Your task to perform on an android device: Search for hotels in New York Image 0: 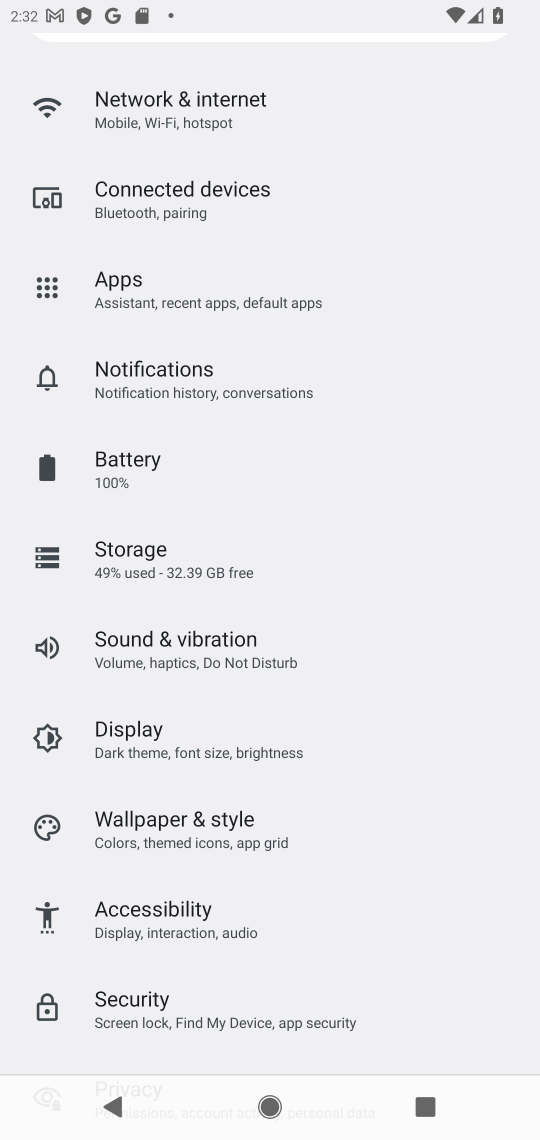
Step 0: press home button
Your task to perform on an android device: Search for hotels in New York Image 1: 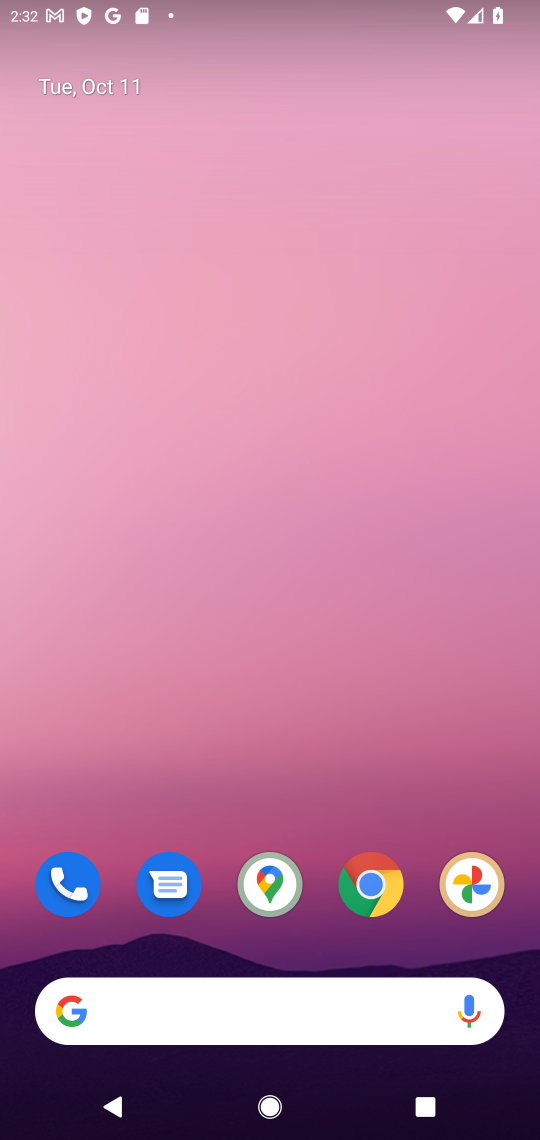
Step 1: click (372, 884)
Your task to perform on an android device: Search for hotels in New York Image 2: 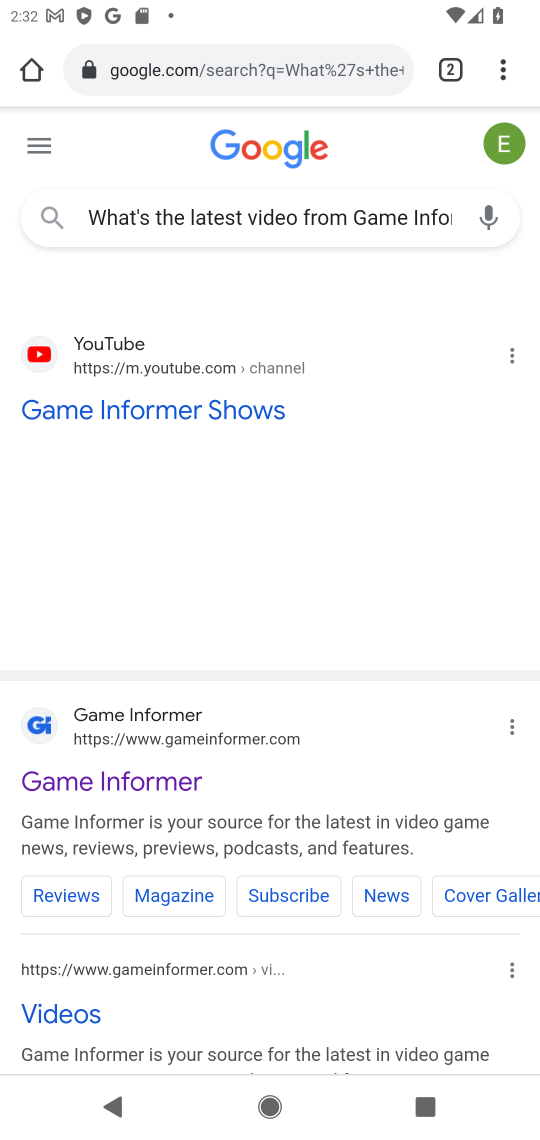
Step 2: click (153, 57)
Your task to perform on an android device: Search for hotels in New York Image 3: 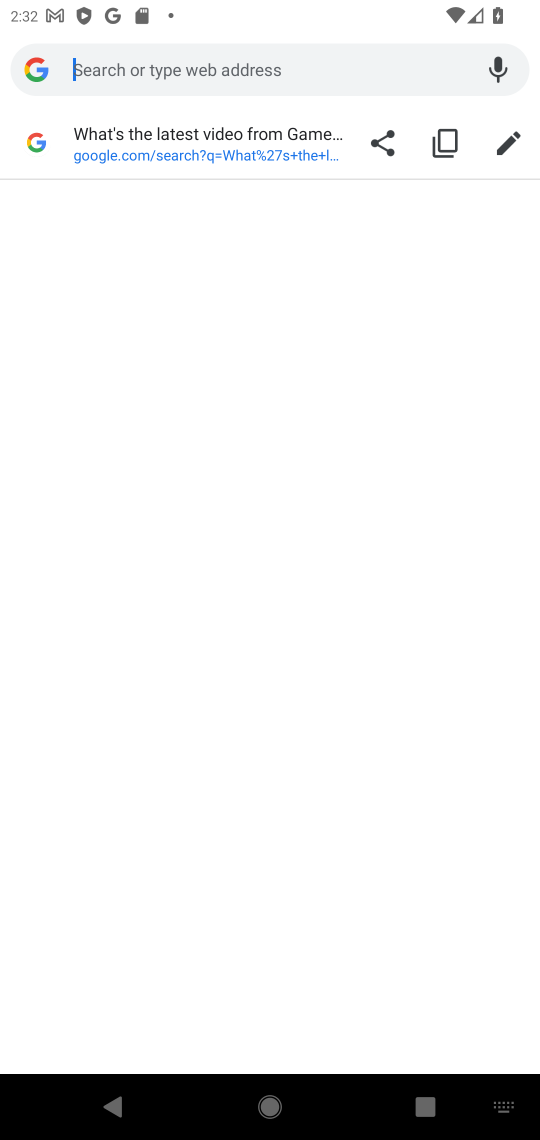
Step 3: type "Hotels in New York"
Your task to perform on an android device: Search for hotels in New York Image 4: 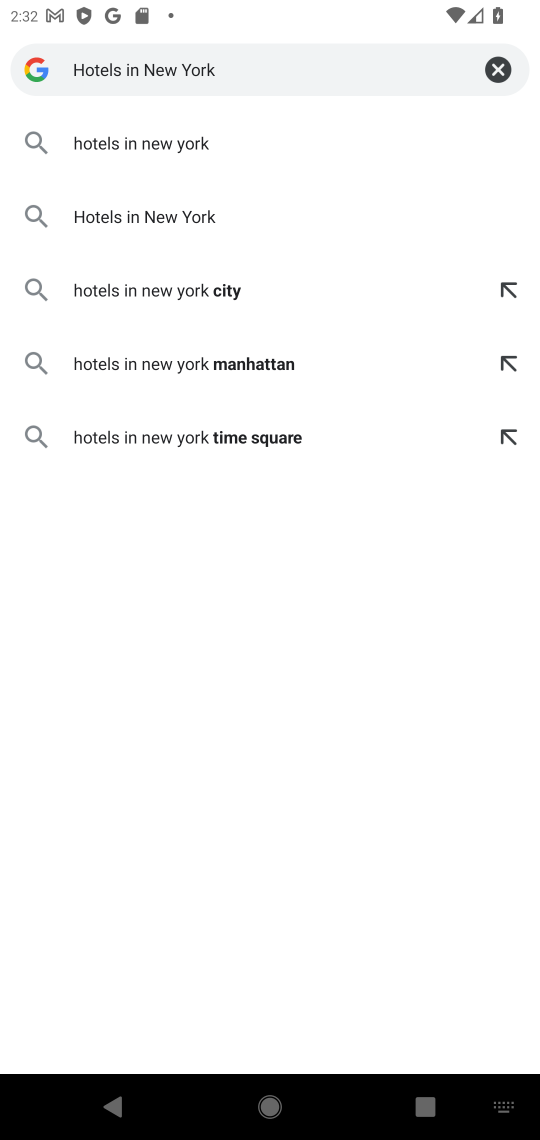
Step 4: click (186, 147)
Your task to perform on an android device: Search for hotels in New York Image 5: 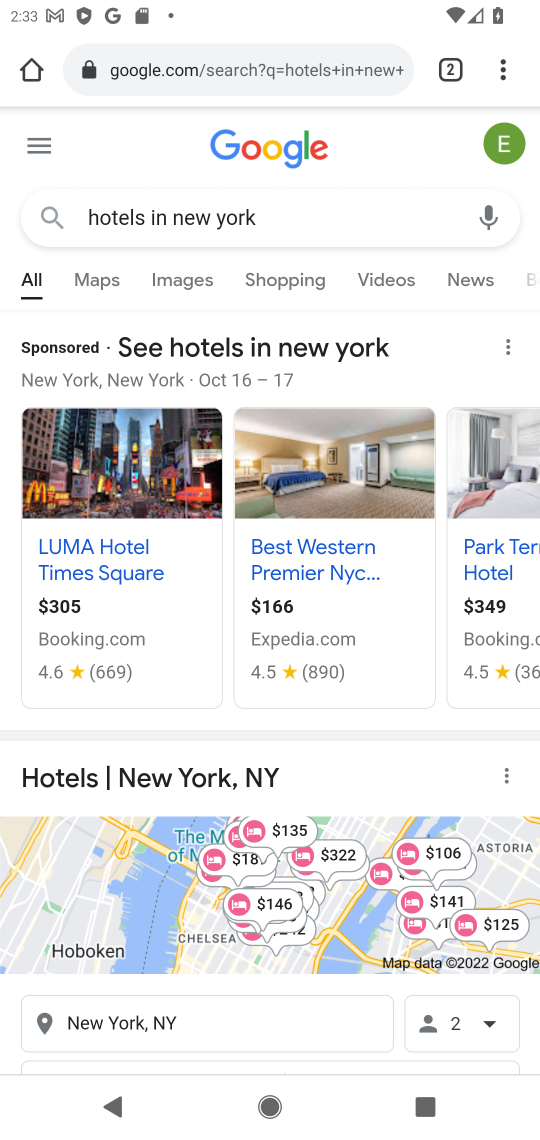
Step 5: task complete